Your task to perform on an android device: set the timer Image 0: 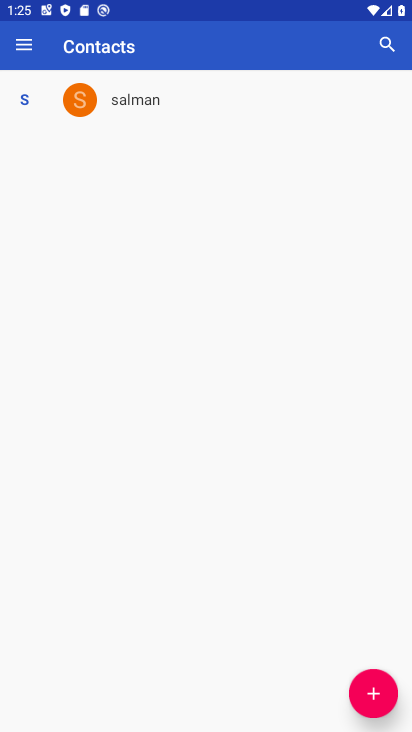
Step 0: press home button
Your task to perform on an android device: set the timer Image 1: 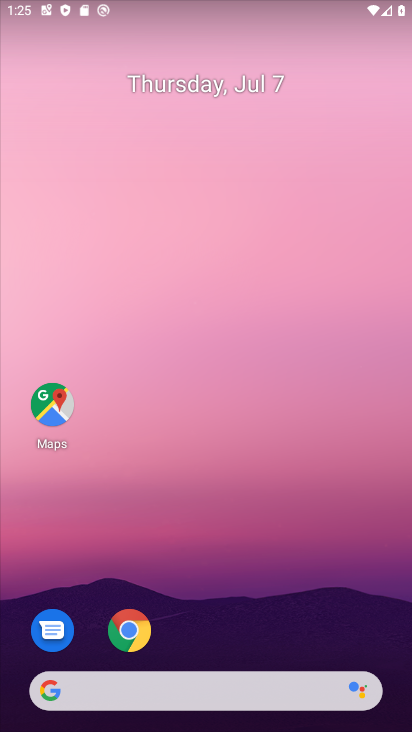
Step 1: drag from (270, 633) to (173, 95)
Your task to perform on an android device: set the timer Image 2: 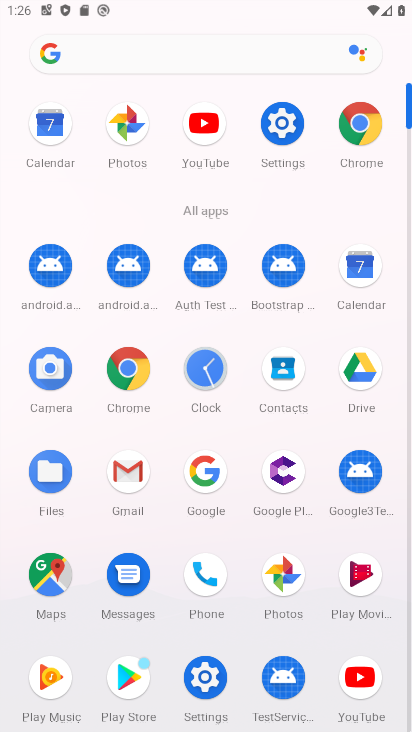
Step 2: click (205, 365)
Your task to perform on an android device: set the timer Image 3: 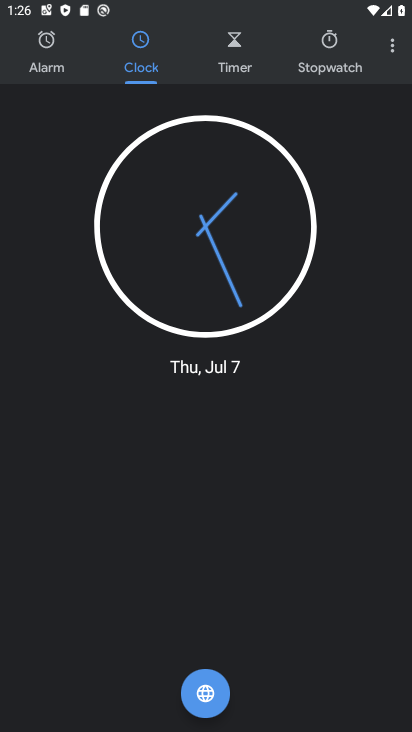
Step 3: click (240, 61)
Your task to perform on an android device: set the timer Image 4: 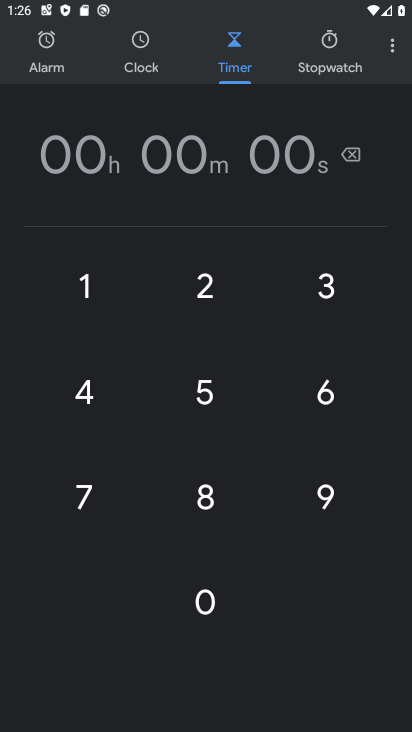
Step 4: type "10000"
Your task to perform on an android device: set the timer Image 5: 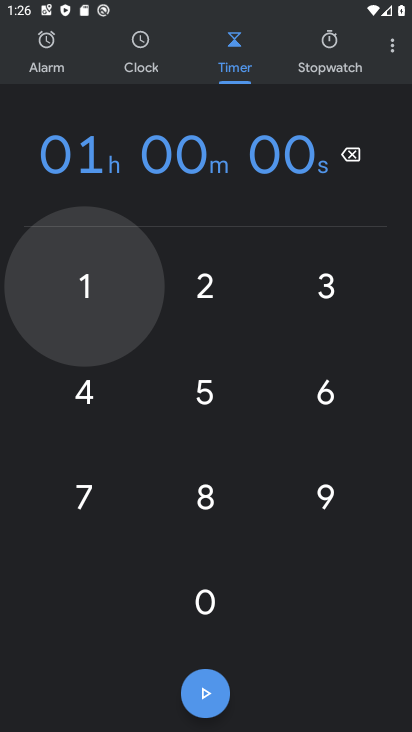
Step 5: click (212, 679)
Your task to perform on an android device: set the timer Image 6: 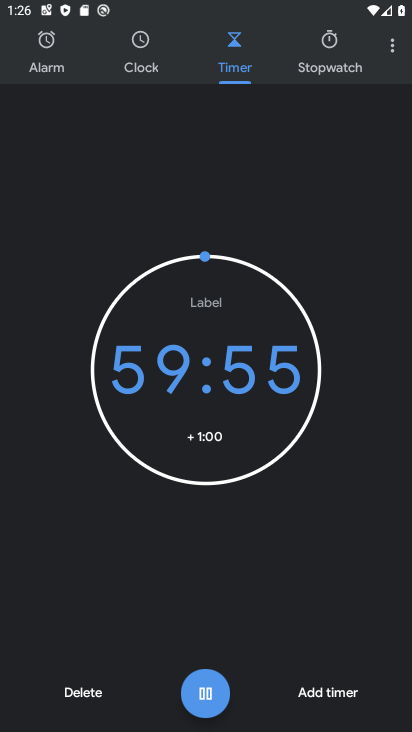
Step 6: task complete